Your task to perform on an android device: Go to internet settings Image 0: 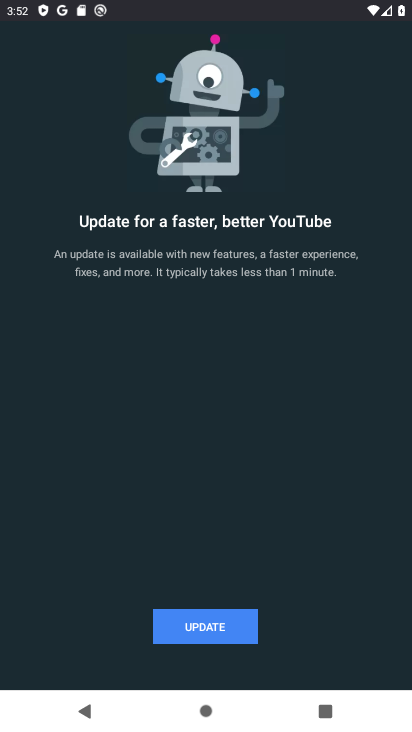
Step 0: click (220, 568)
Your task to perform on an android device: Go to internet settings Image 1: 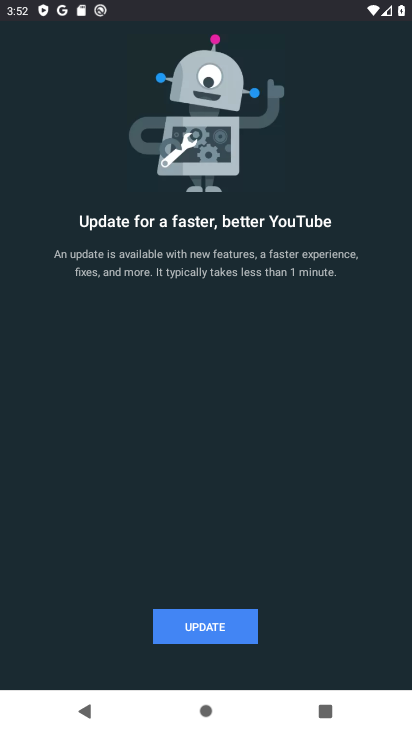
Step 1: drag from (312, 18) to (350, 478)
Your task to perform on an android device: Go to internet settings Image 2: 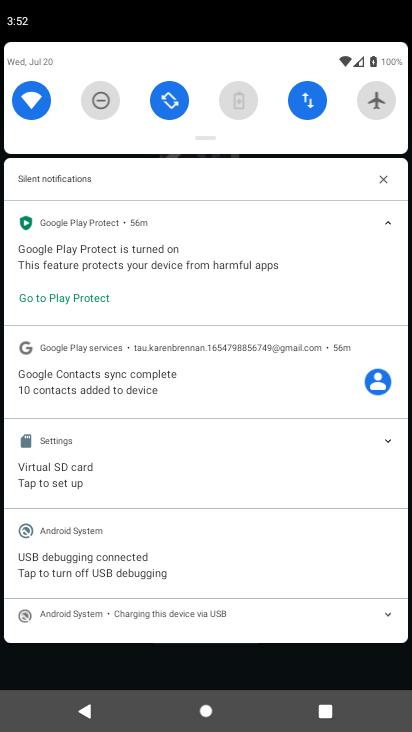
Step 2: click (305, 108)
Your task to perform on an android device: Go to internet settings Image 3: 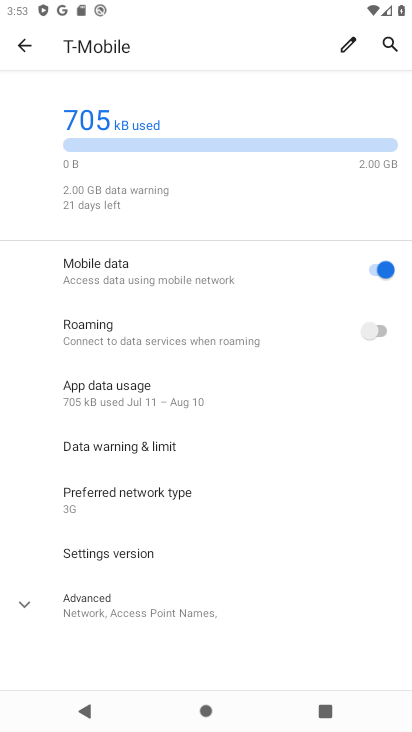
Step 3: task complete